Your task to perform on an android device: Open settings on Google Maps Image 0: 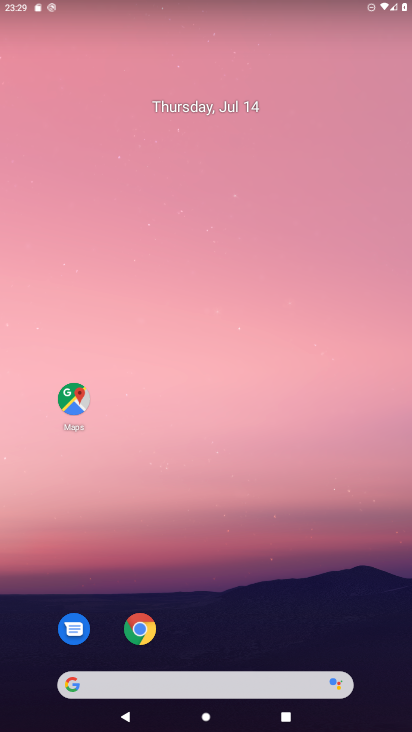
Step 0: click (71, 393)
Your task to perform on an android device: Open settings on Google Maps Image 1: 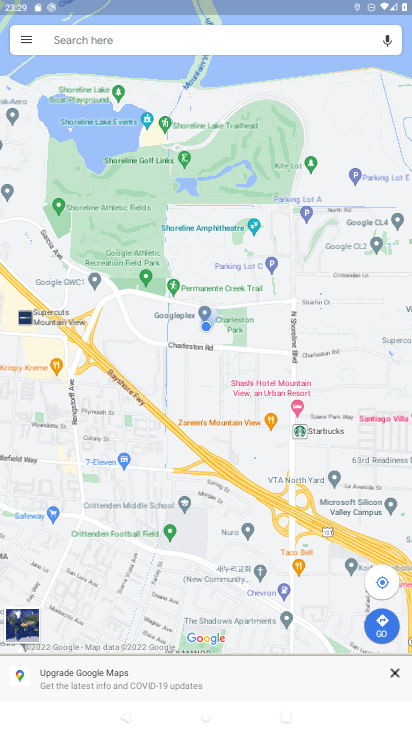
Step 1: task complete